Your task to perform on an android device: Open notification settings Image 0: 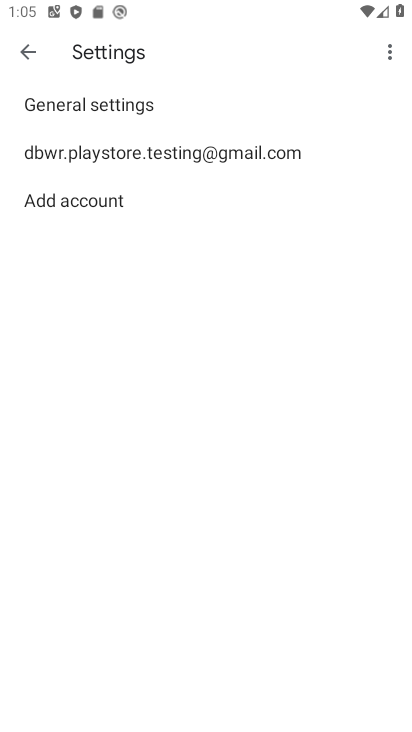
Step 0: task complete